Your task to perform on an android device: Search for a new lipgloss Image 0: 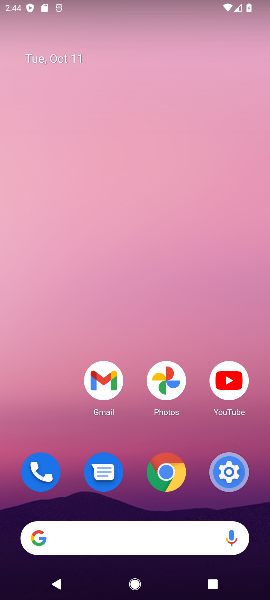
Step 0: click (156, 476)
Your task to perform on an android device: Search for a new lipgloss Image 1: 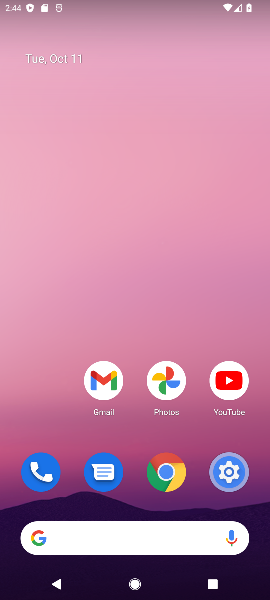
Step 1: click (156, 476)
Your task to perform on an android device: Search for a new lipgloss Image 2: 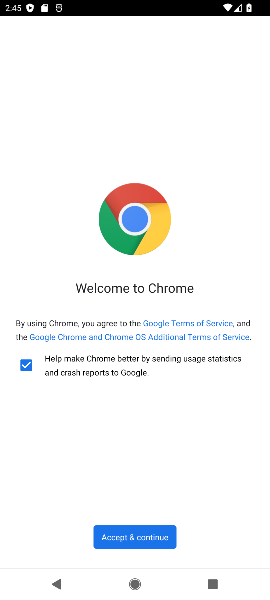
Step 2: click (112, 540)
Your task to perform on an android device: Search for a new lipgloss Image 3: 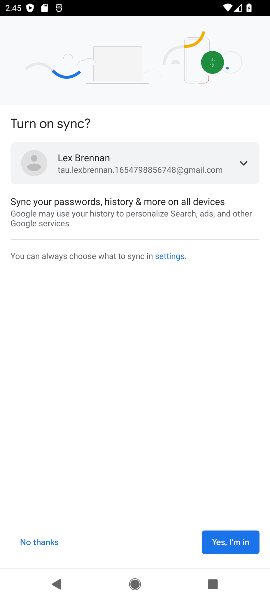
Step 3: click (245, 545)
Your task to perform on an android device: Search for a new lipgloss Image 4: 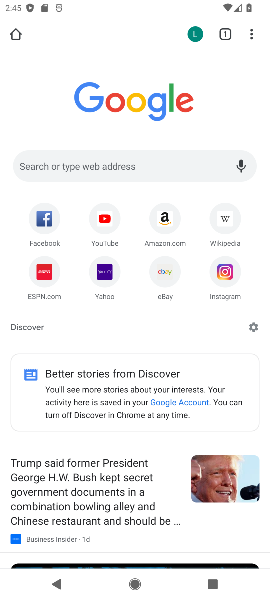
Step 4: click (103, 161)
Your task to perform on an android device: Search for a new lipgloss Image 5: 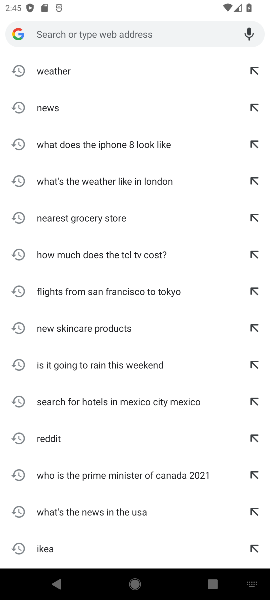
Step 5: type "new lipgloss"
Your task to perform on an android device: Search for a new lipgloss Image 6: 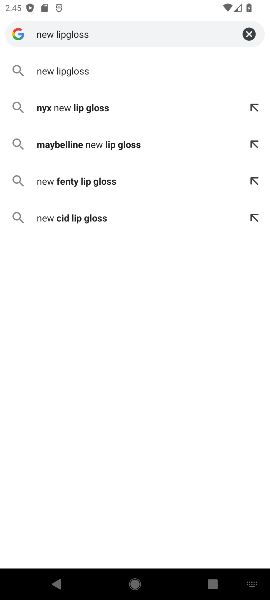
Step 6: click (65, 68)
Your task to perform on an android device: Search for a new lipgloss Image 7: 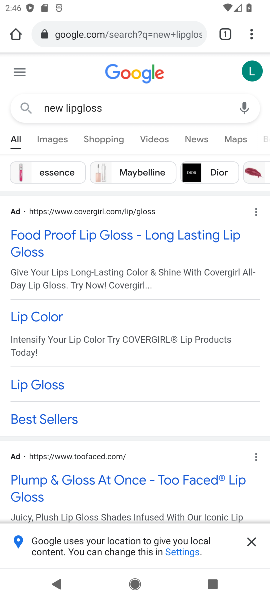
Step 7: click (97, 135)
Your task to perform on an android device: Search for a new lipgloss Image 8: 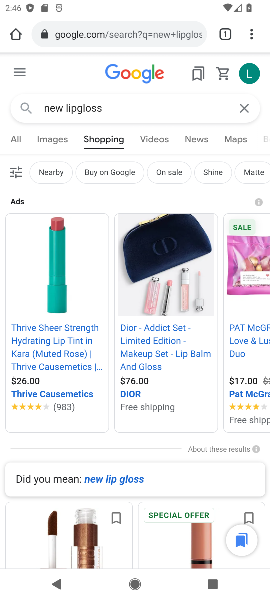
Step 8: click (70, 330)
Your task to perform on an android device: Search for a new lipgloss Image 9: 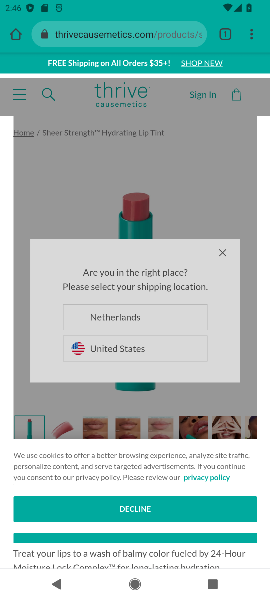
Step 9: click (201, 537)
Your task to perform on an android device: Search for a new lipgloss Image 10: 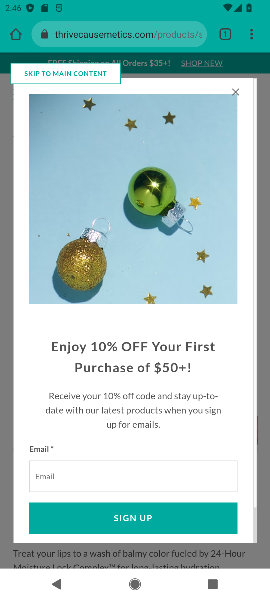
Step 10: click (60, 79)
Your task to perform on an android device: Search for a new lipgloss Image 11: 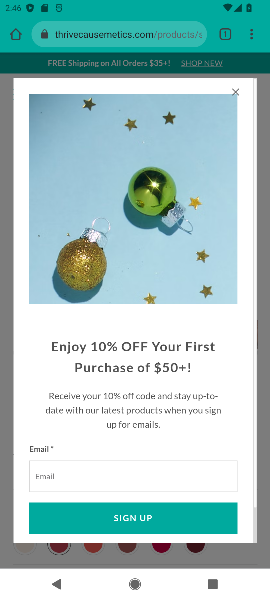
Step 11: click (236, 92)
Your task to perform on an android device: Search for a new lipgloss Image 12: 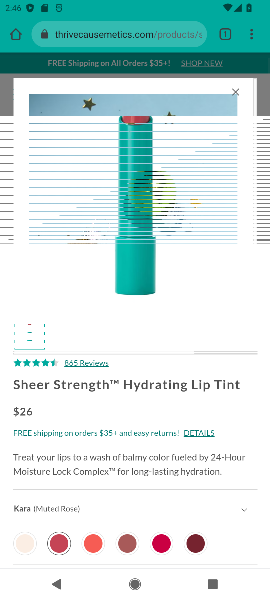
Step 12: task complete